Your task to perform on an android device: check storage Image 0: 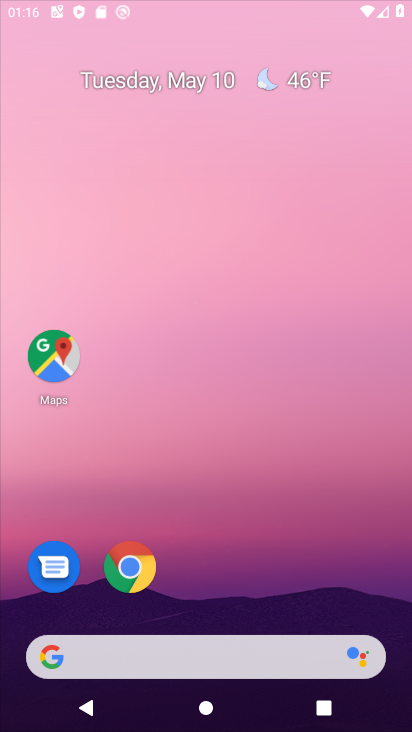
Step 0: drag from (237, 406) to (229, 121)
Your task to perform on an android device: check storage Image 1: 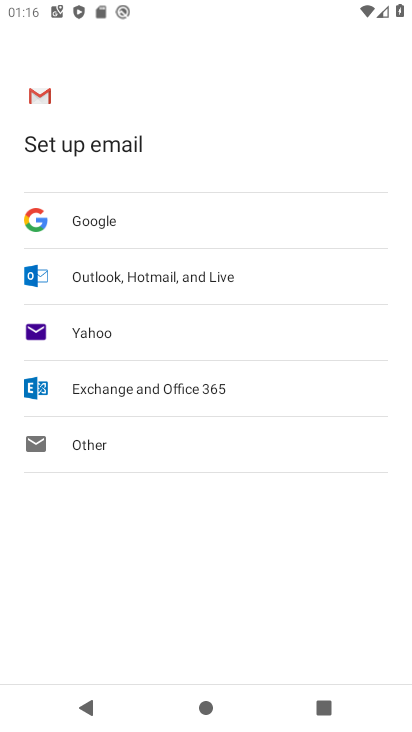
Step 1: press home button
Your task to perform on an android device: check storage Image 2: 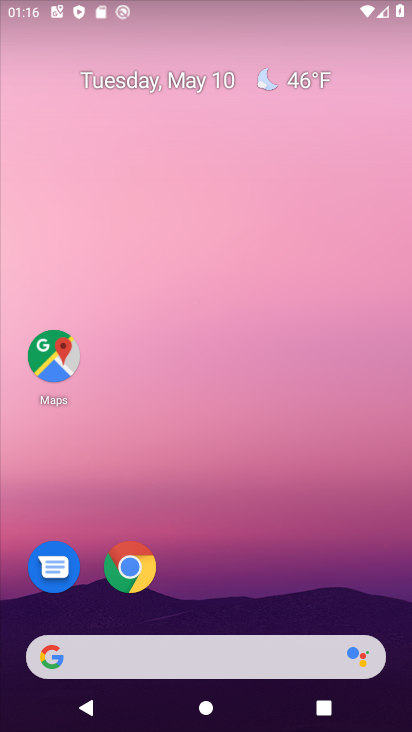
Step 2: drag from (261, 491) to (250, 140)
Your task to perform on an android device: check storage Image 3: 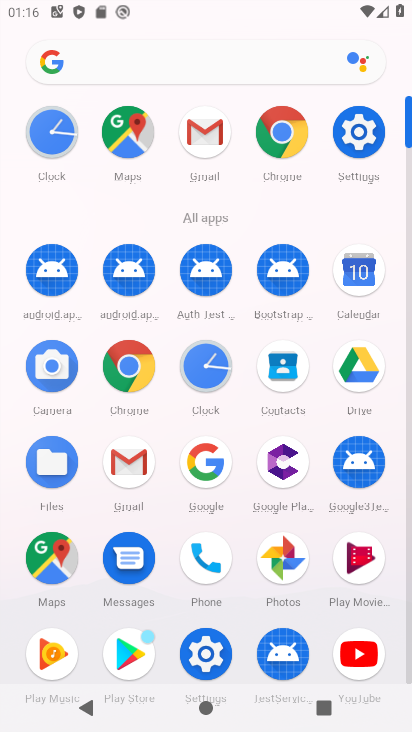
Step 3: click (361, 151)
Your task to perform on an android device: check storage Image 4: 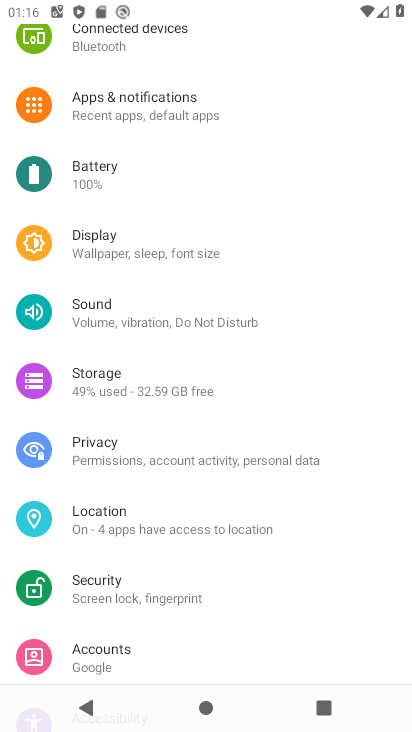
Step 4: drag from (204, 634) to (204, 275)
Your task to perform on an android device: check storage Image 5: 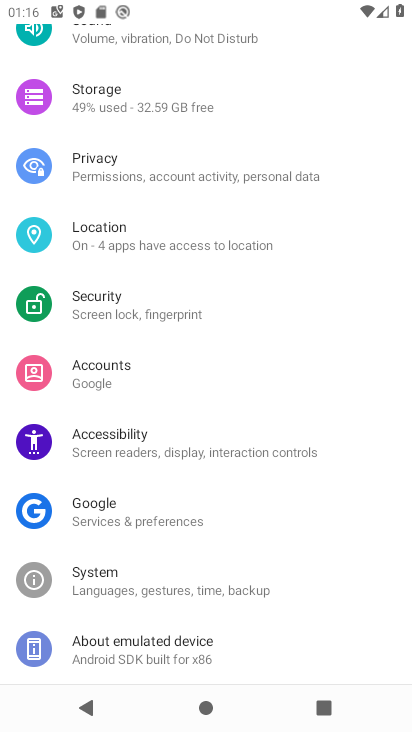
Step 5: click (171, 567)
Your task to perform on an android device: check storage Image 6: 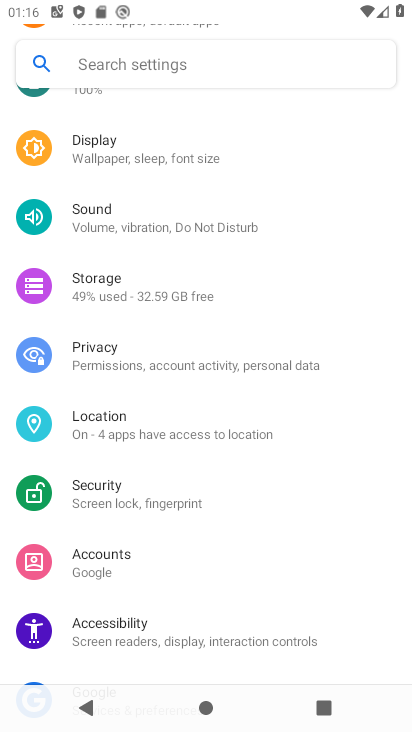
Step 6: click (151, 293)
Your task to perform on an android device: check storage Image 7: 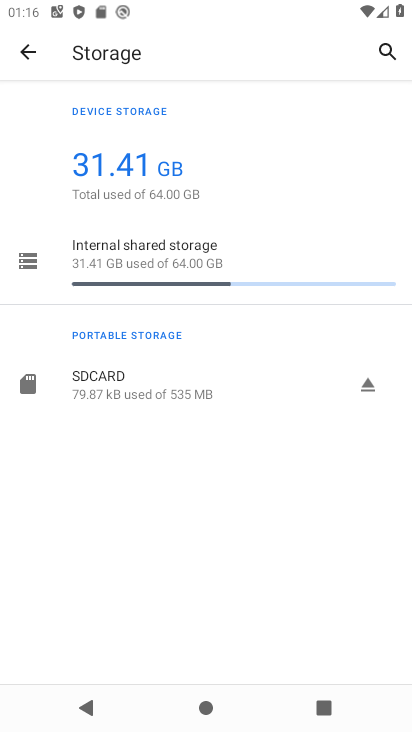
Step 7: task complete